Your task to perform on an android device: Go to network settings Image 0: 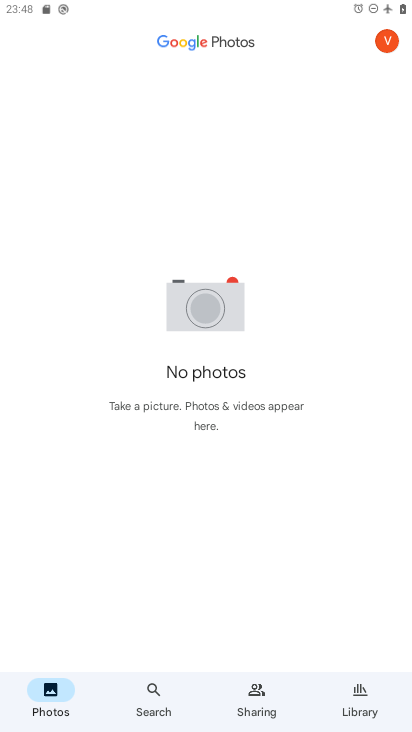
Step 0: press home button
Your task to perform on an android device: Go to network settings Image 1: 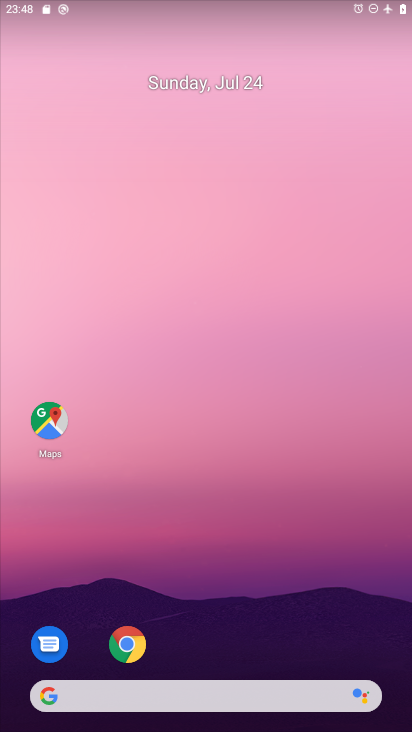
Step 1: drag from (368, 628) to (317, 96)
Your task to perform on an android device: Go to network settings Image 2: 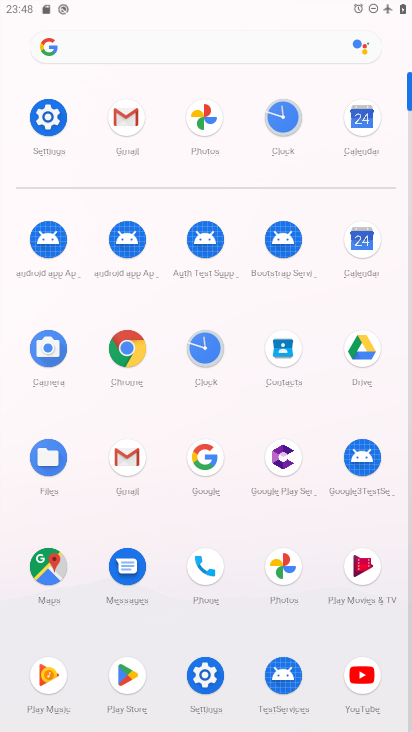
Step 2: click (204, 676)
Your task to perform on an android device: Go to network settings Image 3: 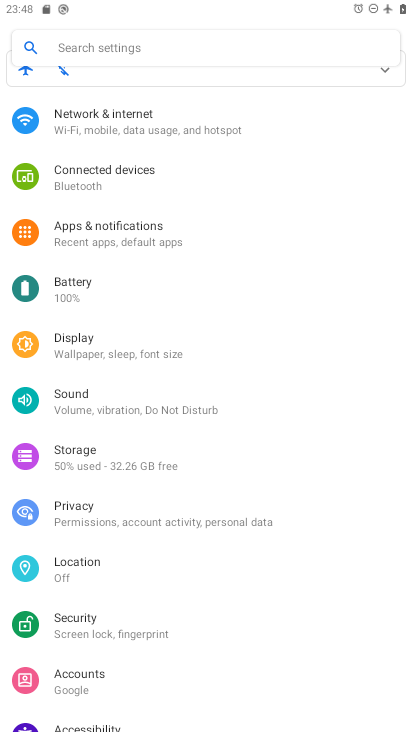
Step 3: click (104, 124)
Your task to perform on an android device: Go to network settings Image 4: 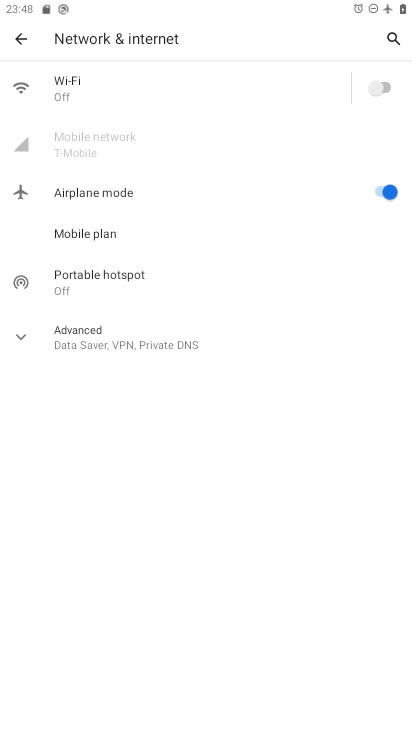
Step 4: task complete